Your task to perform on an android device: Add dell alienware to the cart on walmart.com, then select checkout. Image 0: 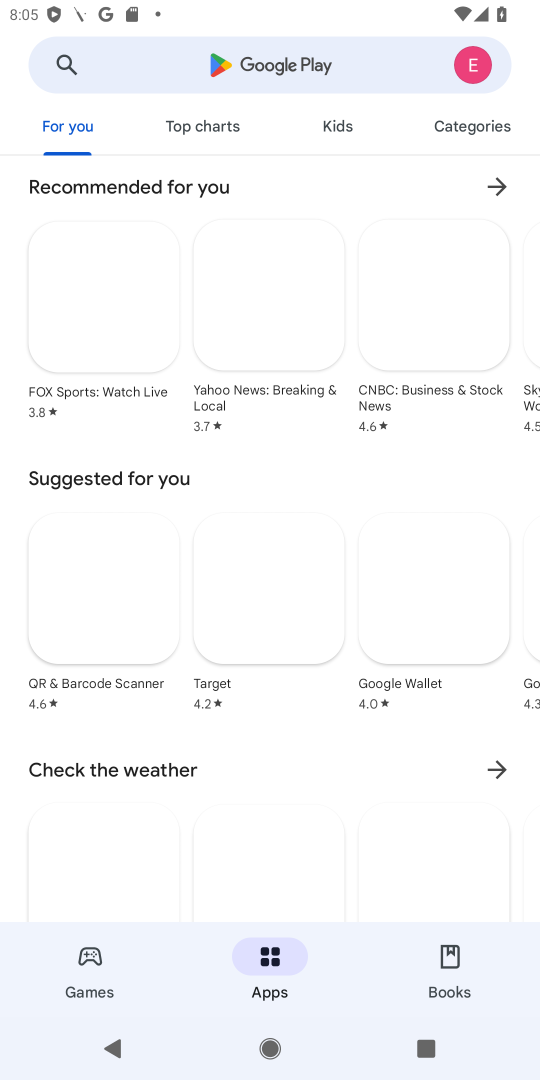
Step 0: press home button
Your task to perform on an android device: Add dell alienware to the cart on walmart.com, then select checkout. Image 1: 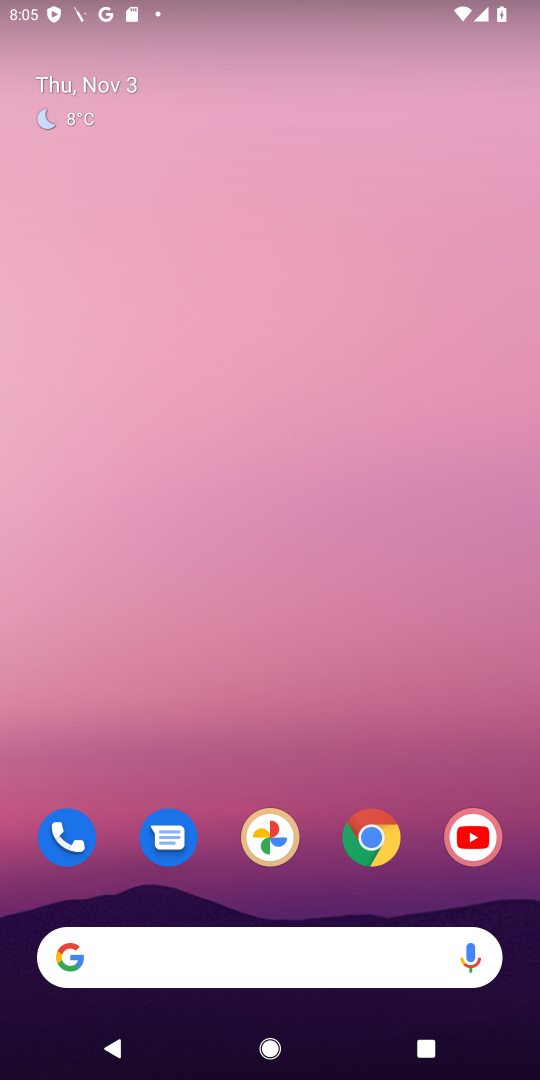
Step 1: click (374, 825)
Your task to perform on an android device: Add dell alienware to the cart on walmart.com, then select checkout. Image 2: 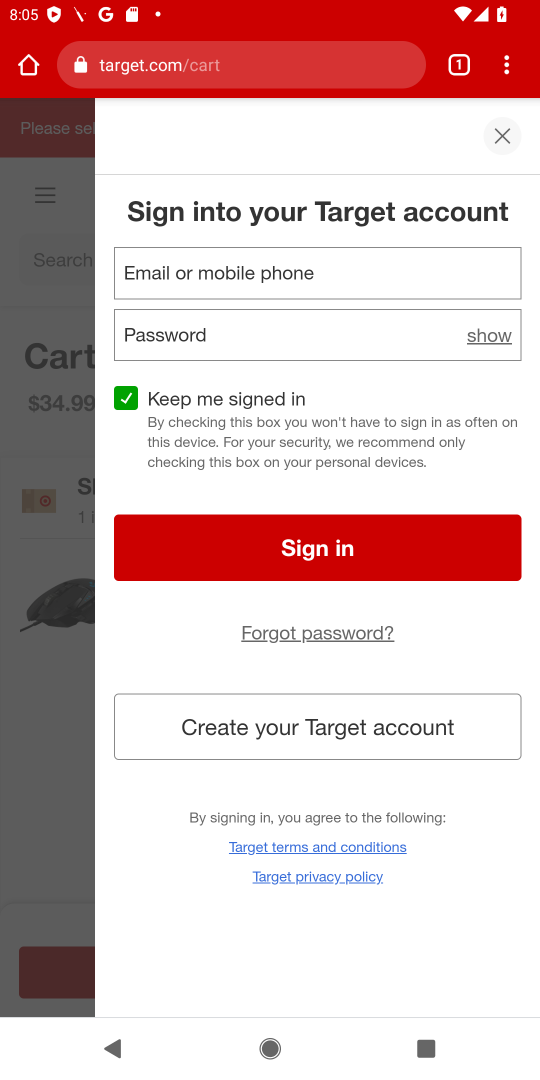
Step 2: click (243, 70)
Your task to perform on an android device: Add dell alienware to the cart on walmart.com, then select checkout. Image 3: 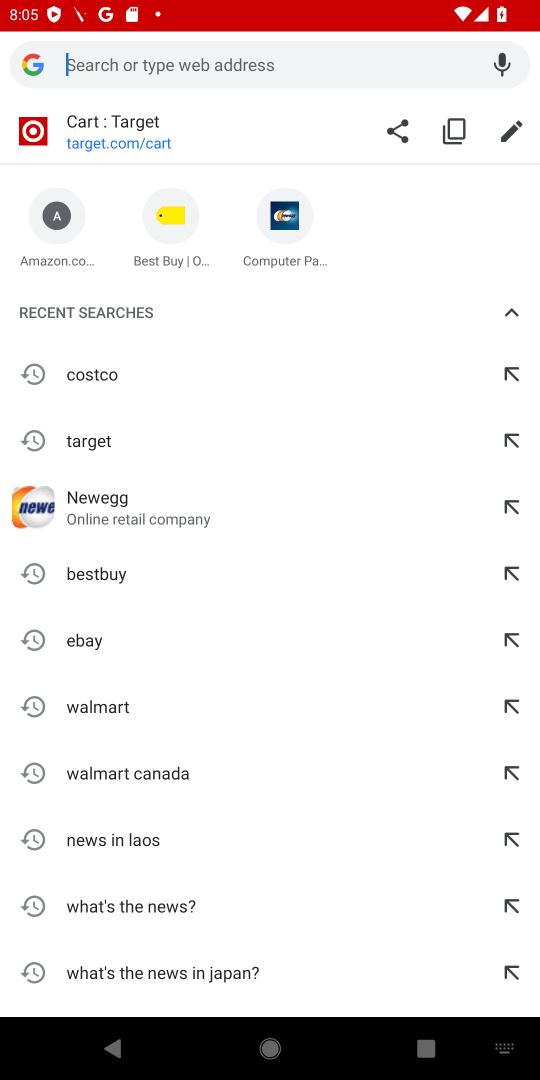
Step 3: click (87, 762)
Your task to perform on an android device: Add dell alienware to the cart on walmart.com, then select checkout. Image 4: 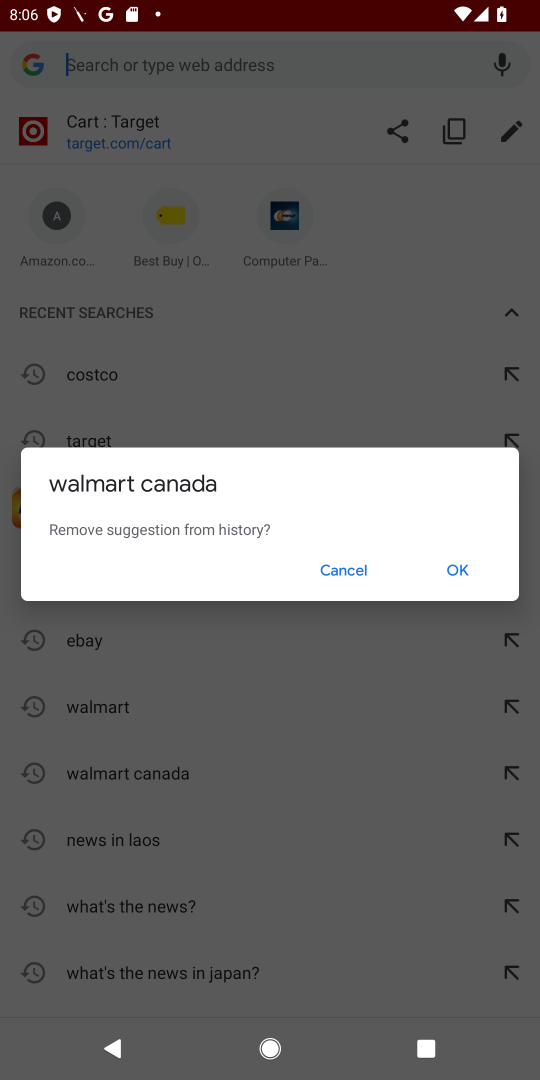
Step 4: click (354, 566)
Your task to perform on an android device: Add dell alienware to the cart on walmart.com, then select checkout. Image 5: 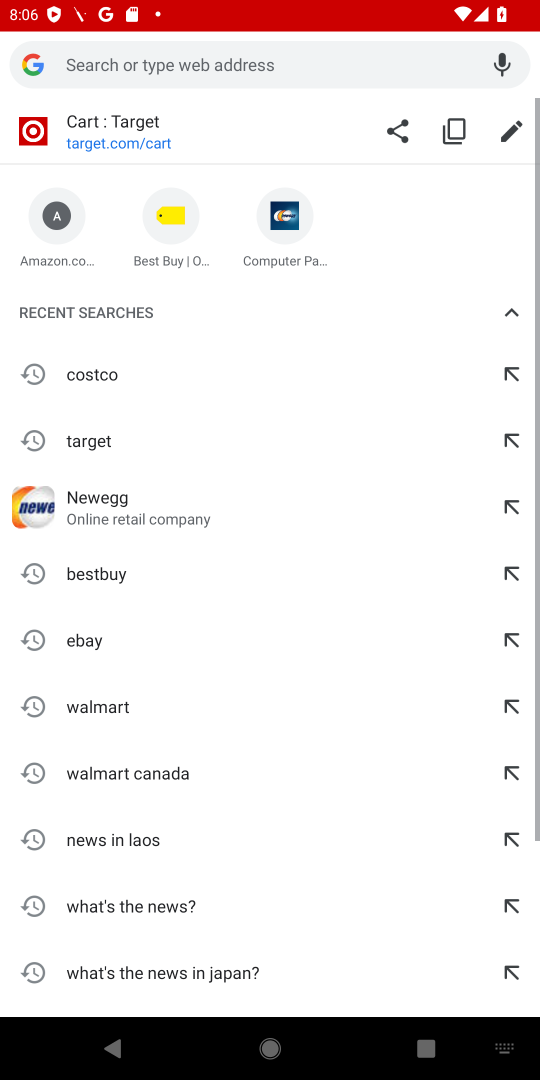
Step 5: click (86, 773)
Your task to perform on an android device: Add dell alienware to the cart on walmart.com, then select checkout. Image 6: 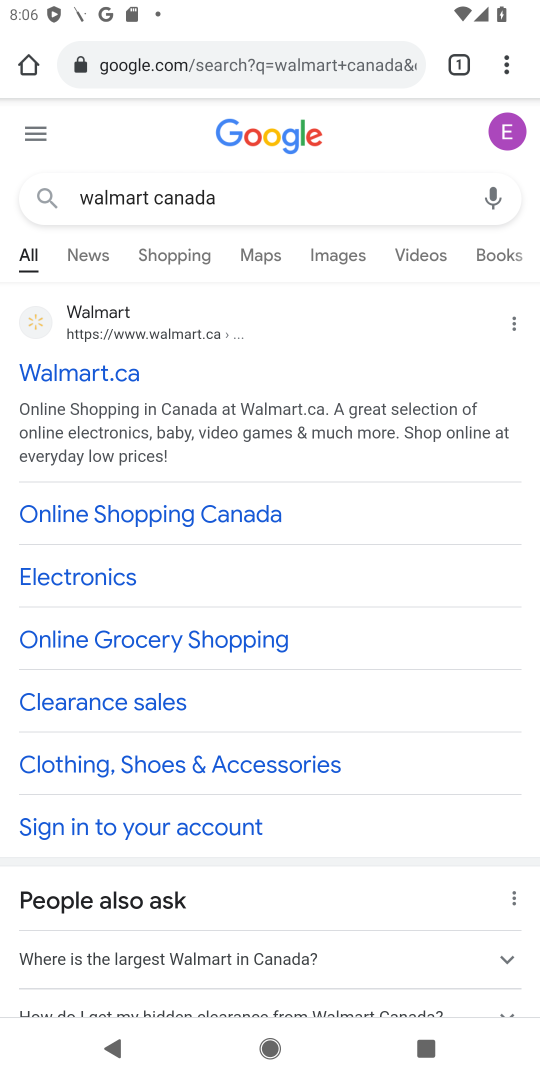
Step 6: click (122, 374)
Your task to perform on an android device: Add dell alienware to the cart on walmart.com, then select checkout. Image 7: 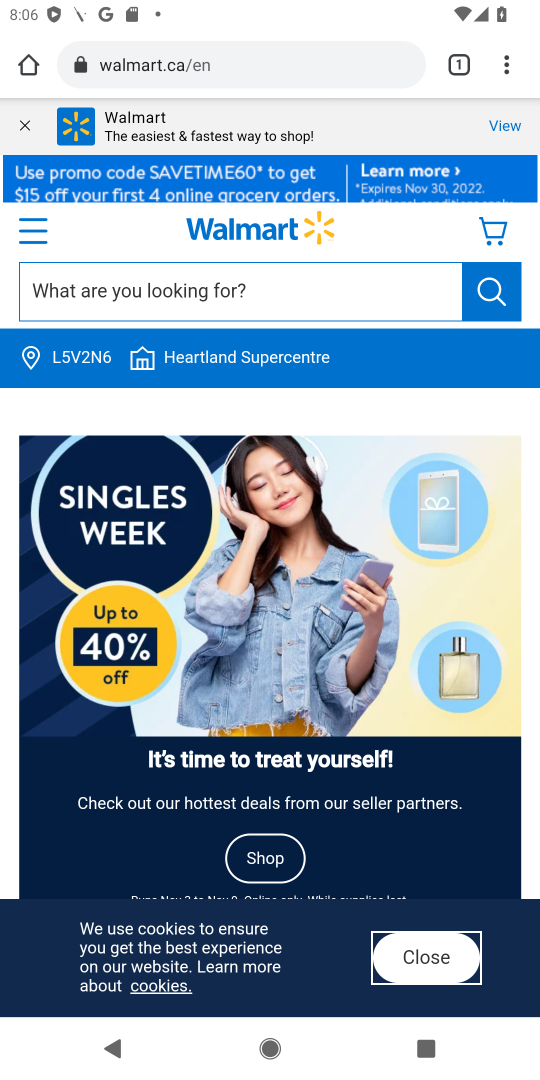
Step 7: click (308, 181)
Your task to perform on an android device: Add dell alienware to the cart on walmart.com, then select checkout. Image 8: 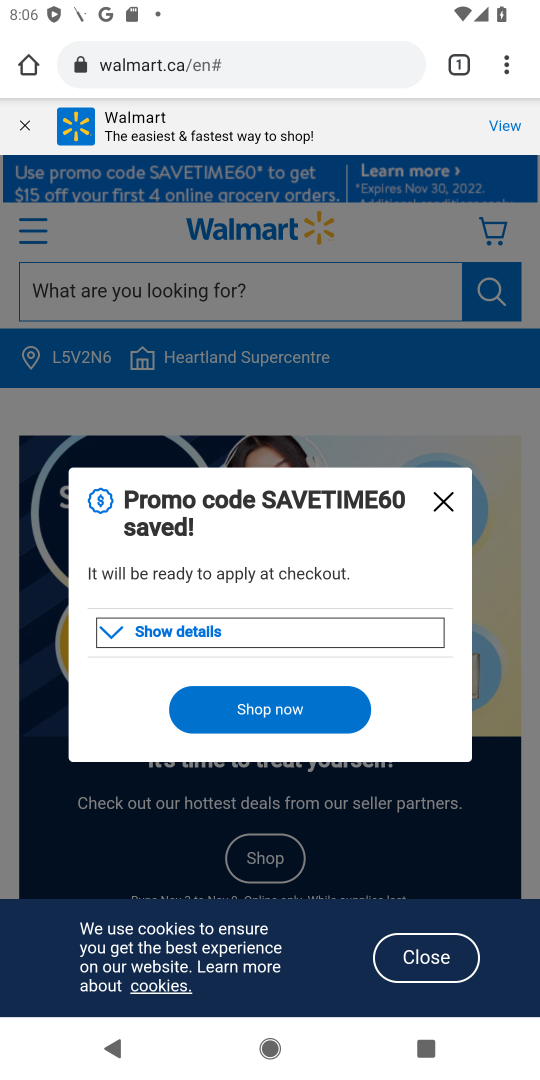
Step 8: click (309, 284)
Your task to perform on an android device: Add dell alienware to the cart on walmart.com, then select checkout. Image 9: 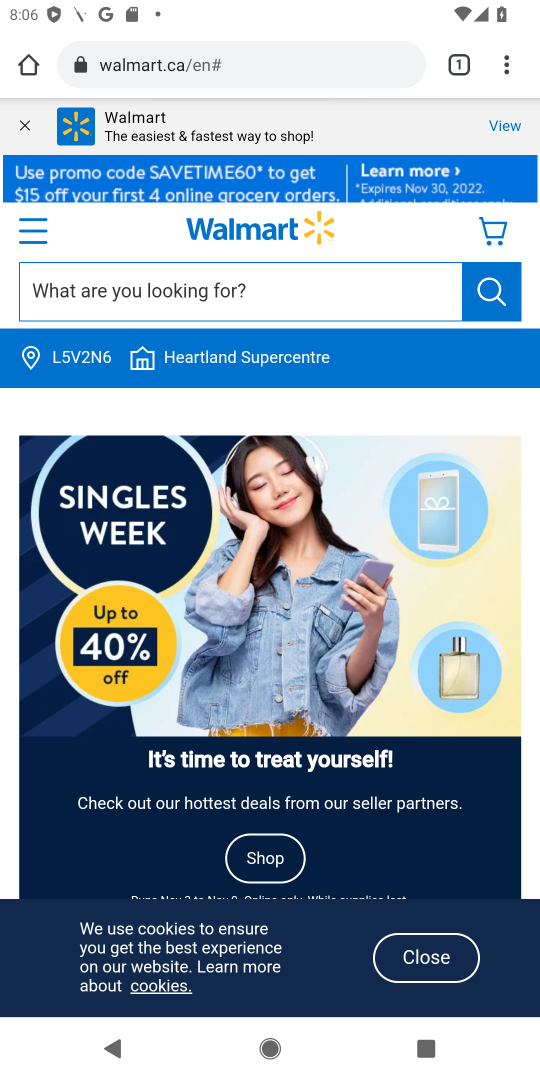
Step 9: click (338, 299)
Your task to perform on an android device: Add dell alienware to the cart on walmart.com, then select checkout. Image 10: 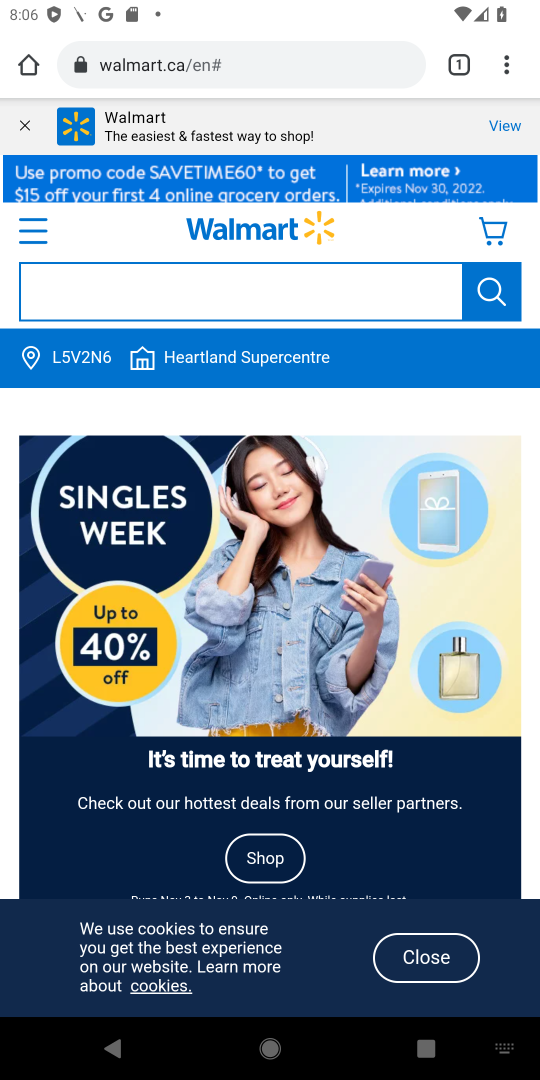
Step 10: type "dell alienware"
Your task to perform on an android device: Add dell alienware to the cart on walmart.com, then select checkout. Image 11: 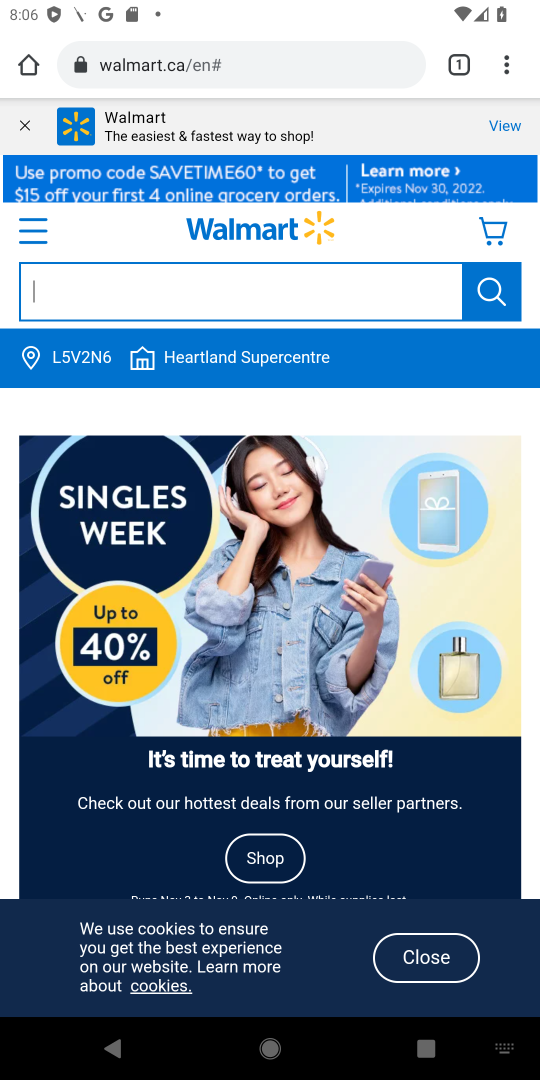
Step 11: press enter
Your task to perform on an android device: Add dell alienware to the cart on walmart.com, then select checkout. Image 12: 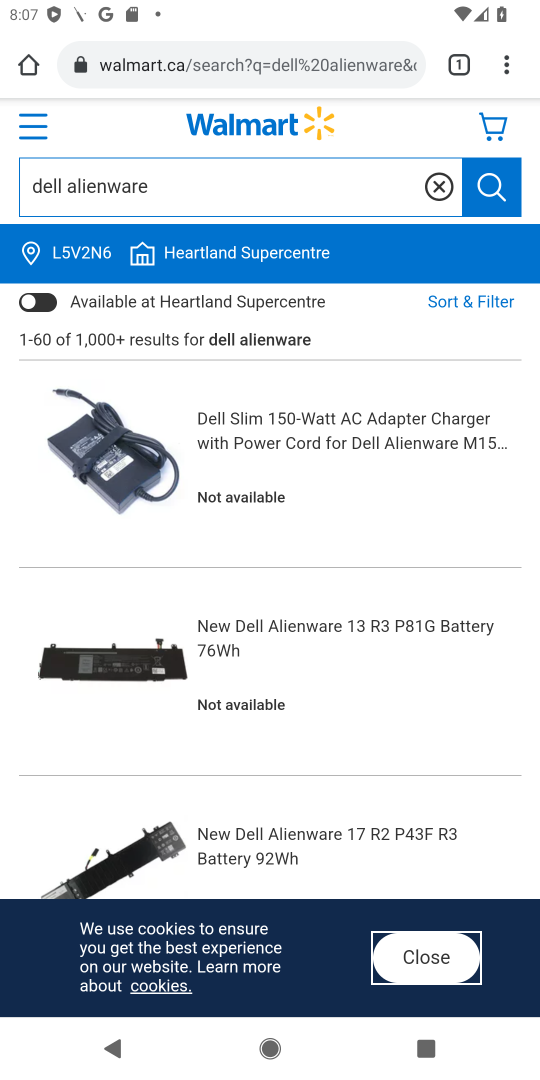
Step 12: click (274, 661)
Your task to perform on an android device: Add dell alienware to the cart on walmart.com, then select checkout. Image 13: 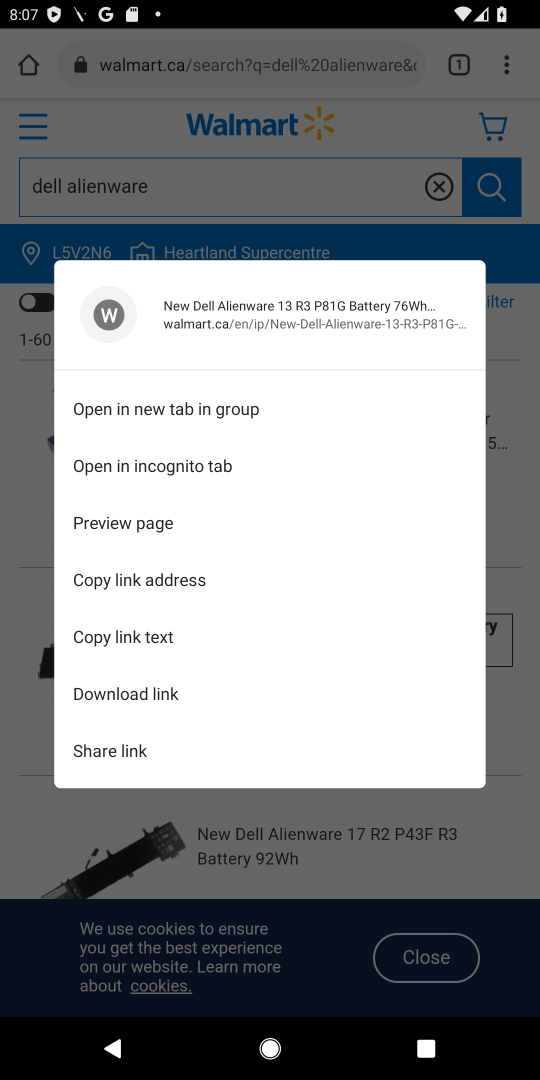
Step 13: click (523, 711)
Your task to perform on an android device: Add dell alienware to the cart on walmart.com, then select checkout. Image 14: 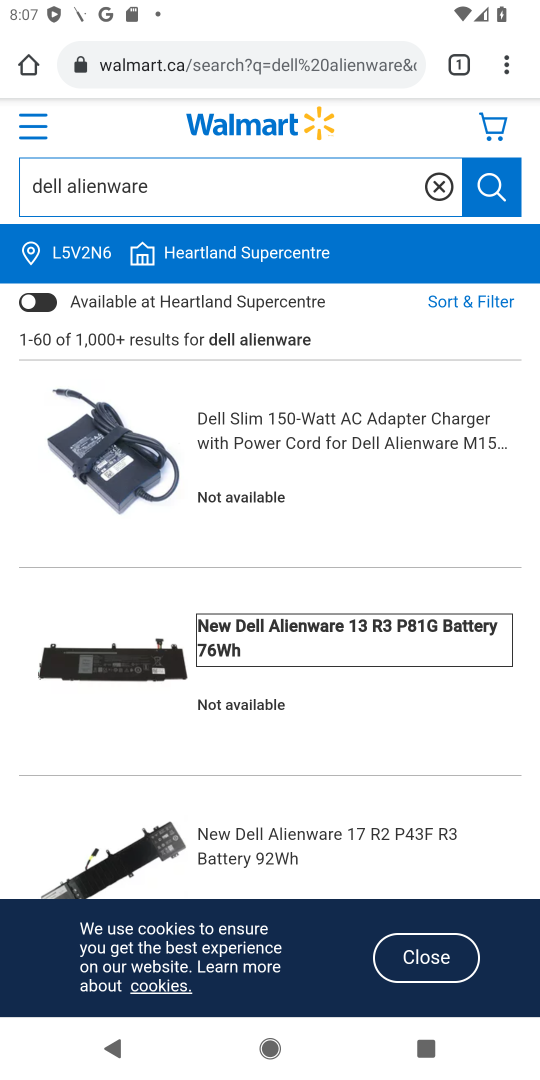
Step 14: click (325, 682)
Your task to perform on an android device: Add dell alienware to the cart on walmart.com, then select checkout. Image 15: 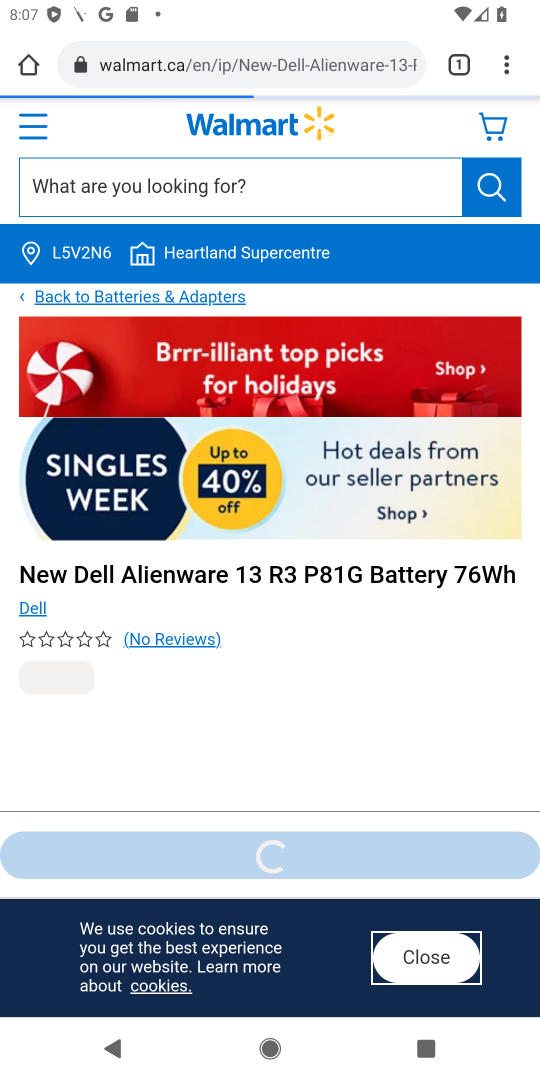
Step 15: task complete